Your task to perform on an android device: snooze an email in the gmail app Image 0: 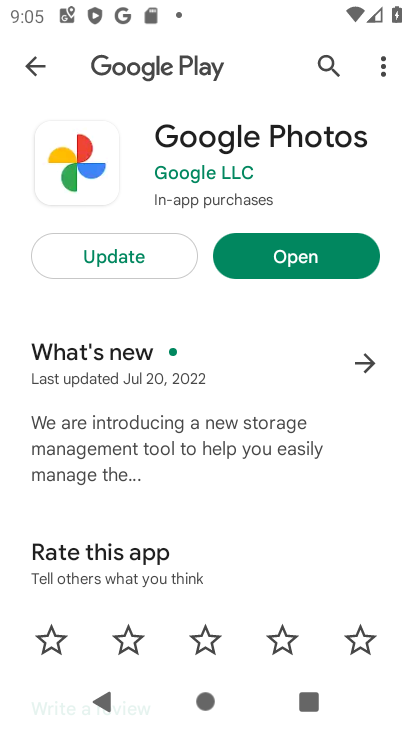
Step 0: press home button
Your task to perform on an android device: snooze an email in the gmail app Image 1: 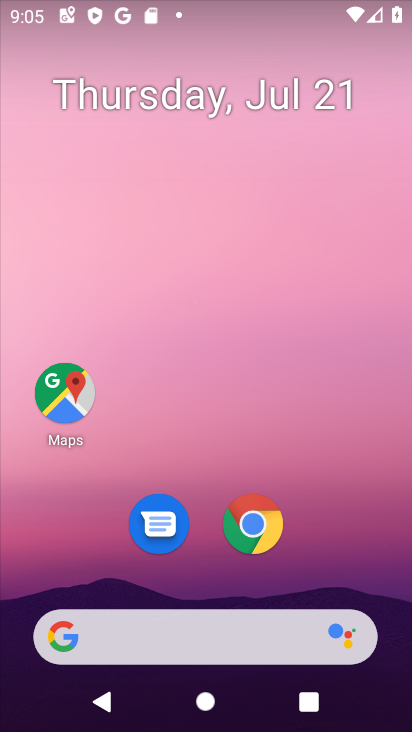
Step 1: drag from (218, 613) to (314, 91)
Your task to perform on an android device: snooze an email in the gmail app Image 2: 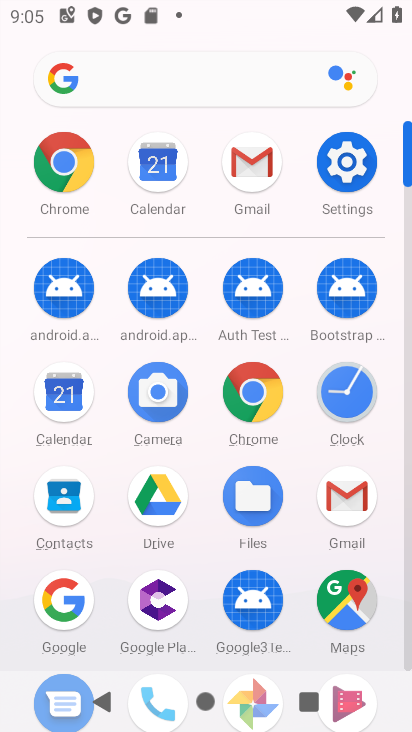
Step 2: click (247, 174)
Your task to perform on an android device: snooze an email in the gmail app Image 3: 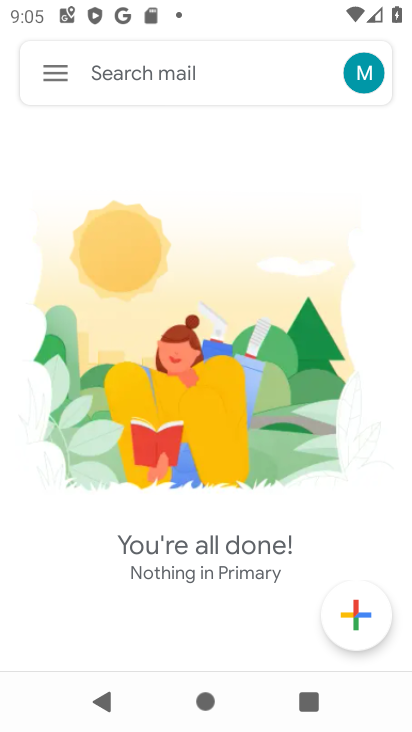
Step 3: click (44, 69)
Your task to perform on an android device: snooze an email in the gmail app Image 4: 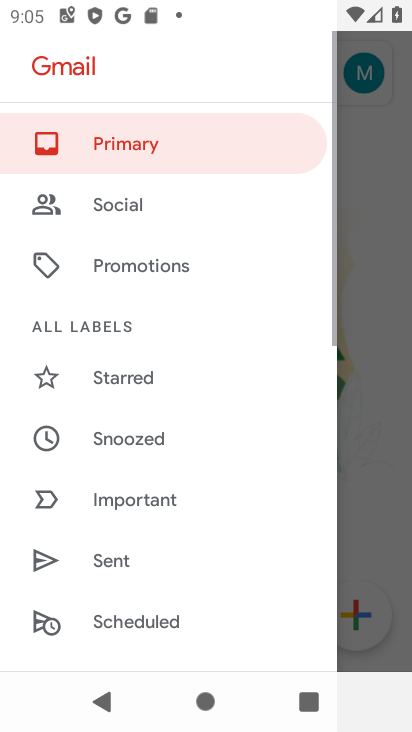
Step 4: drag from (227, 470) to (256, 122)
Your task to perform on an android device: snooze an email in the gmail app Image 5: 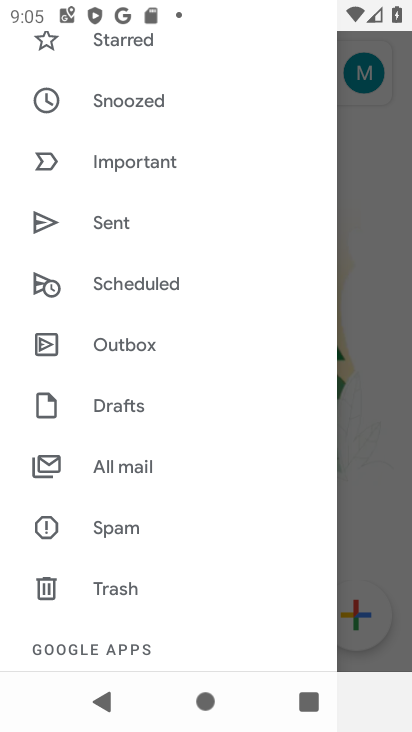
Step 5: click (156, 465)
Your task to perform on an android device: snooze an email in the gmail app Image 6: 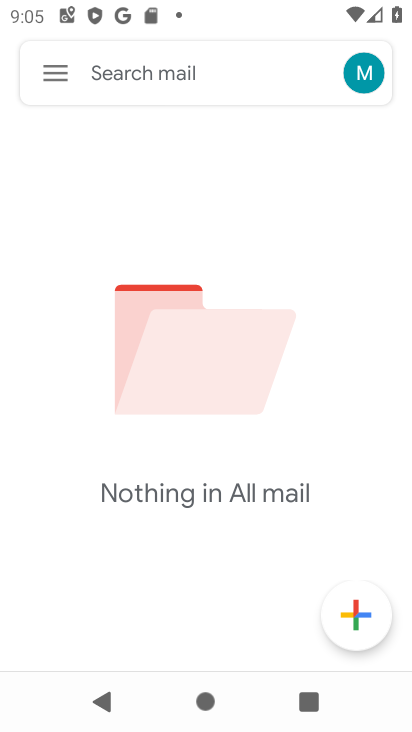
Step 6: task complete